Your task to perform on an android device: Open Chrome and go to the settings page Image 0: 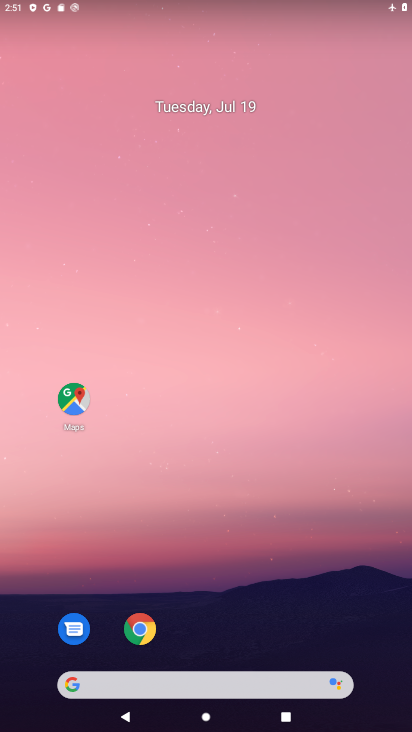
Step 0: drag from (234, 625) to (232, 141)
Your task to perform on an android device: Open Chrome and go to the settings page Image 1: 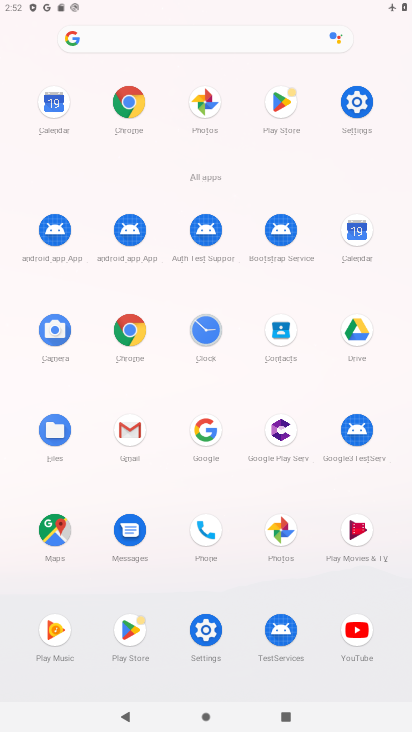
Step 1: click (134, 105)
Your task to perform on an android device: Open Chrome and go to the settings page Image 2: 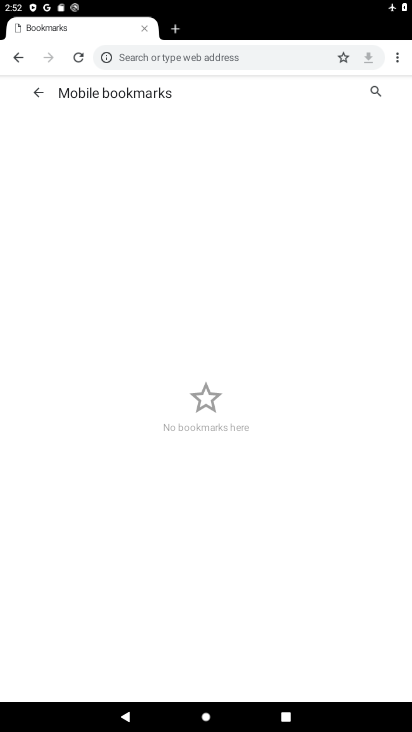
Step 2: click (393, 58)
Your task to perform on an android device: Open Chrome and go to the settings page Image 3: 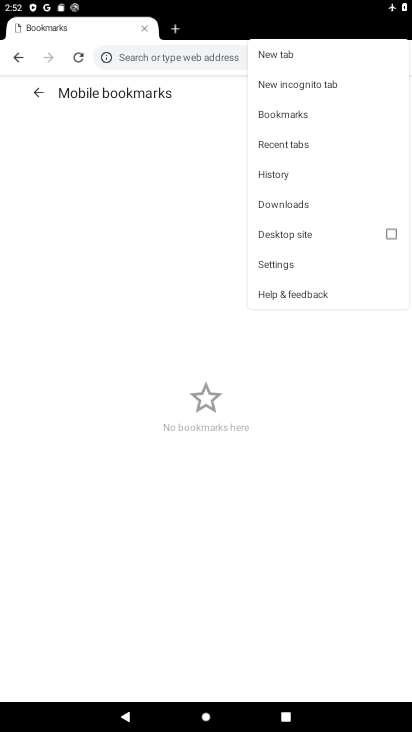
Step 3: click (316, 261)
Your task to perform on an android device: Open Chrome and go to the settings page Image 4: 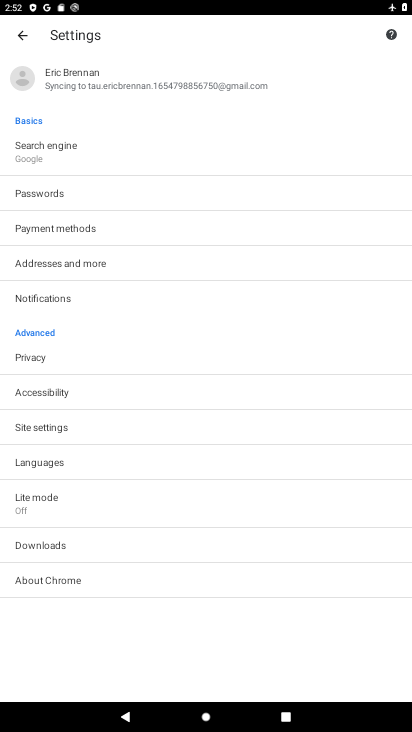
Step 4: task complete